Your task to perform on an android device: Show me popular videos on Youtube Image 0: 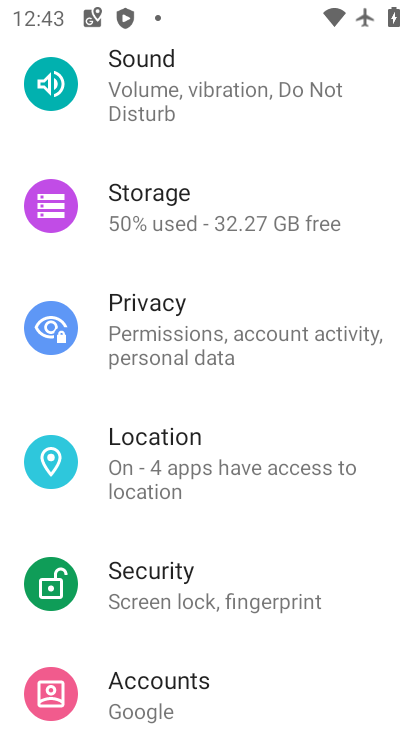
Step 0: press home button
Your task to perform on an android device: Show me popular videos on Youtube Image 1: 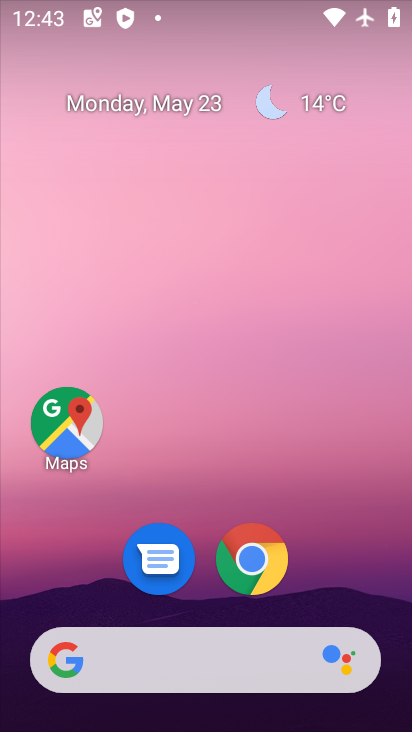
Step 1: drag from (345, 584) to (411, 609)
Your task to perform on an android device: Show me popular videos on Youtube Image 2: 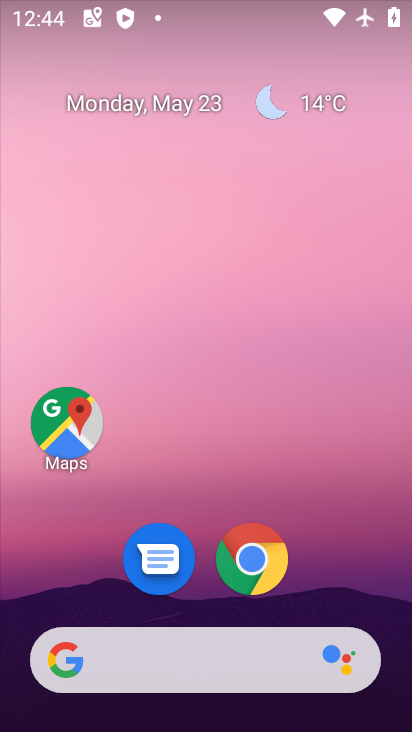
Step 2: click (408, 598)
Your task to perform on an android device: Show me popular videos on Youtube Image 3: 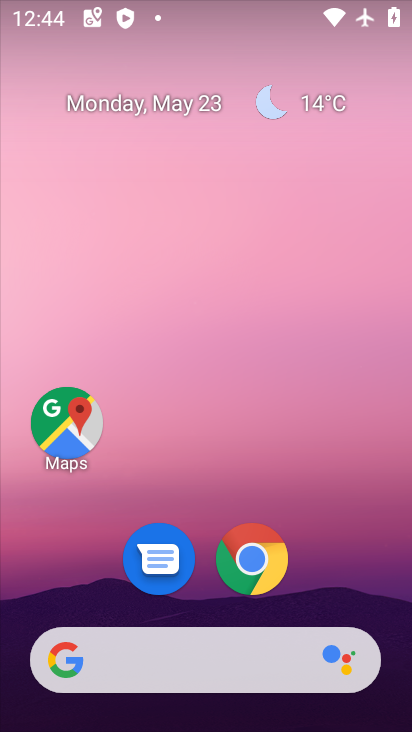
Step 3: drag from (359, 616) to (412, 537)
Your task to perform on an android device: Show me popular videos on Youtube Image 4: 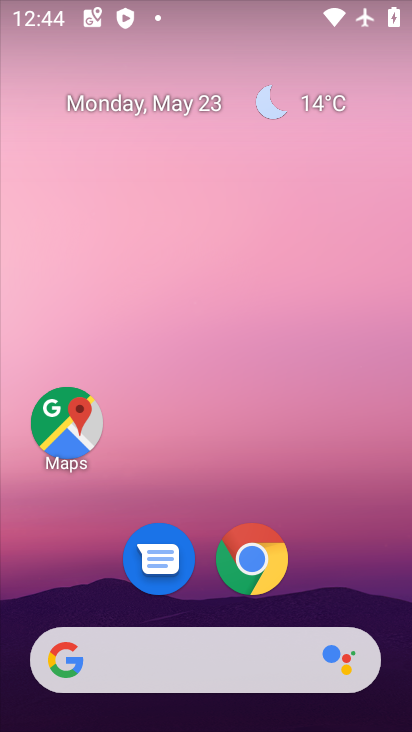
Step 4: drag from (409, 563) to (400, 16)
Your task to perform on an android device: Show me popular videos on Youtube Image 5: 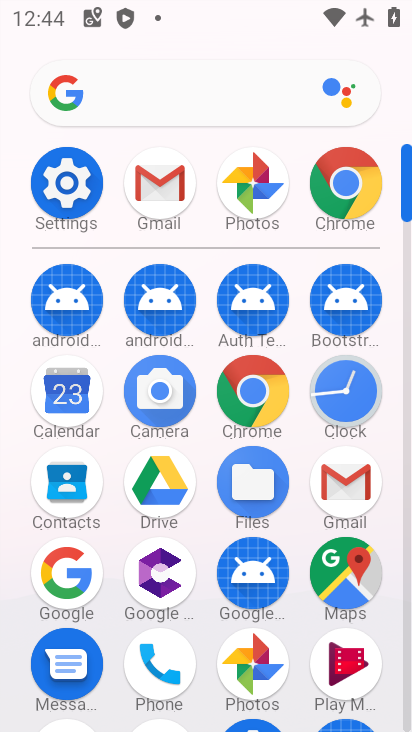
Step 5: drag from (411, 530) to (400, 436)
Your task to perform on an android device: Show me popular videos on Youtube Image 6: 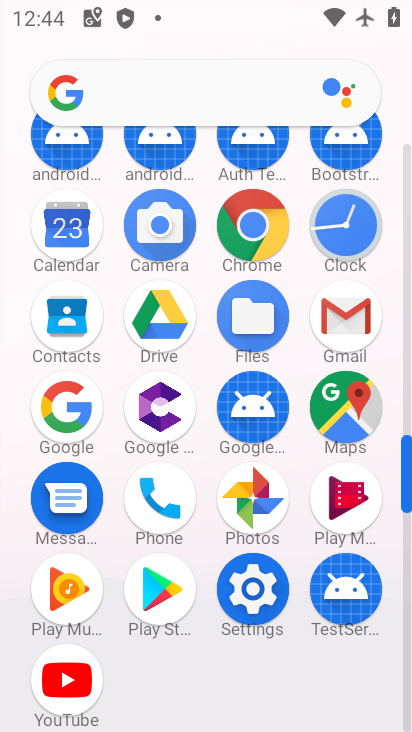
Step 6: click (82, 676)
Your task to perform on an android device: Show me popular videos on Youtube Image 7: 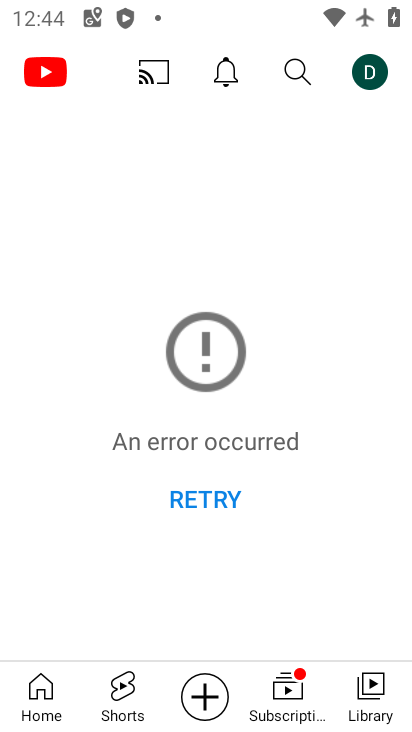
Step 7: click (48, 707)
Your task to perform on an android device: Show me popular videos on Youtube Image 8: 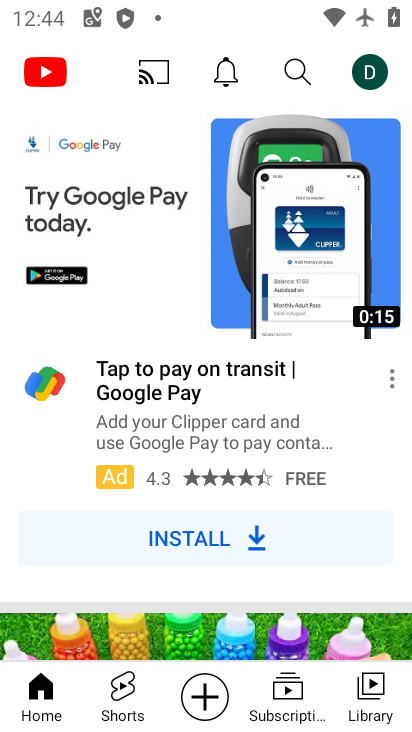
Step 8: task complete